Your task to perform on an android device: change alarm snooze length Image 0: 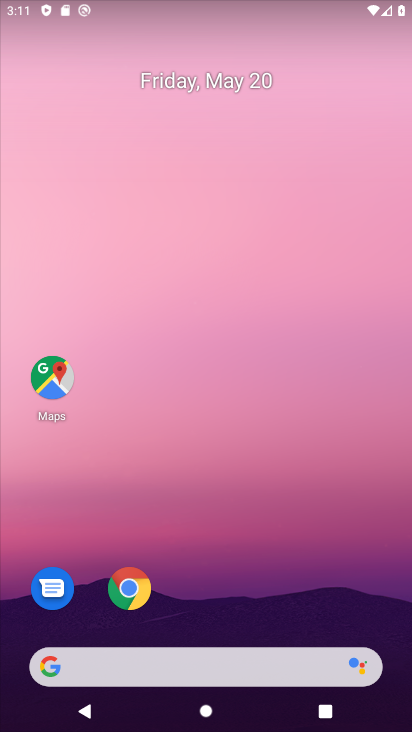
Step 0: press home button
Your task to perform on an android device: change alarm snooze length Image 1: 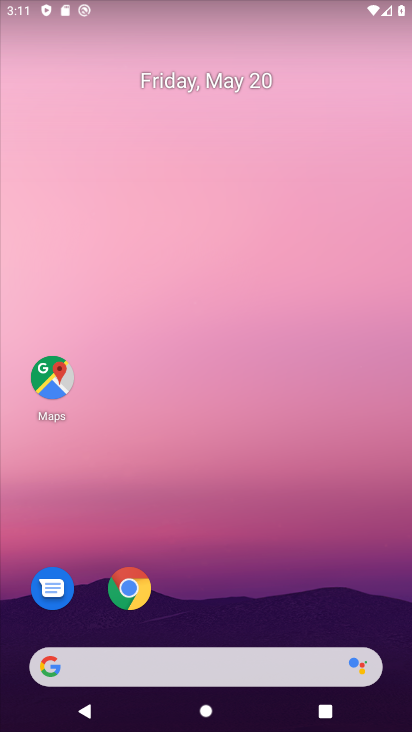
Step 1: drag from (133, 667) to (231, 197)
Your task to perform on an android device: change alarm snooze length Image 2: 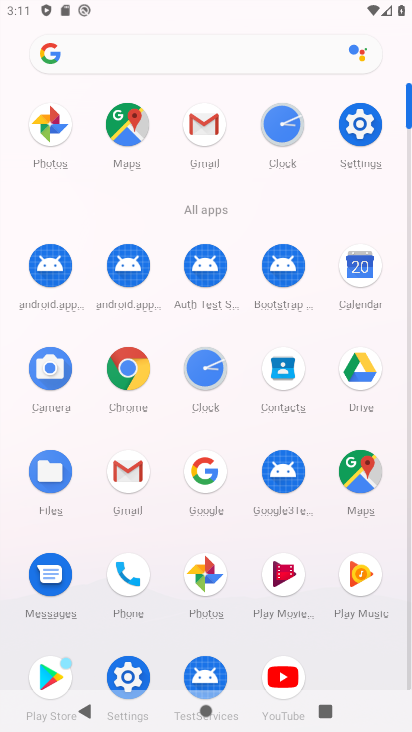
Step 2: click (281, 137)
Your task to perform on an android device: change alarm snooze length Image 3: 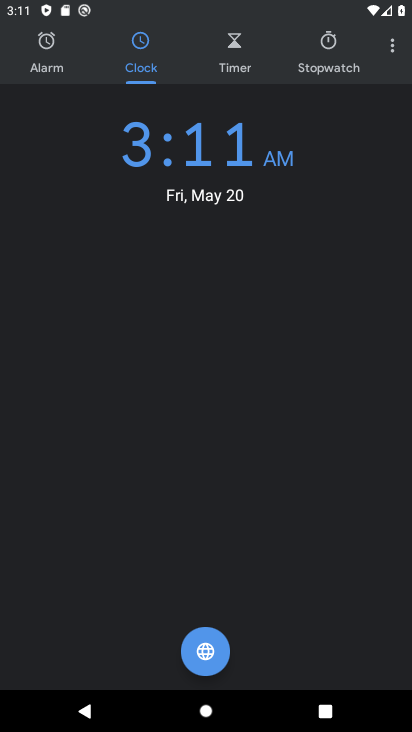
Step 3: click (392, 52)
Your task to perform on an android device: change alarm snooze length Image 4: 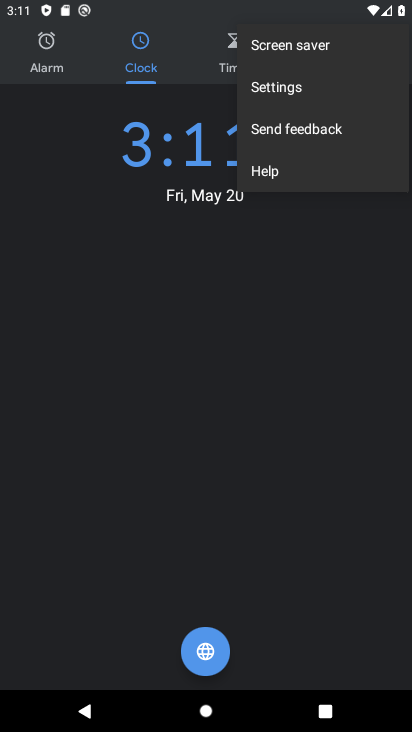
Step 4: click (287, 93)
Your task to perform on an android device: change alarm snooze length Image 5: 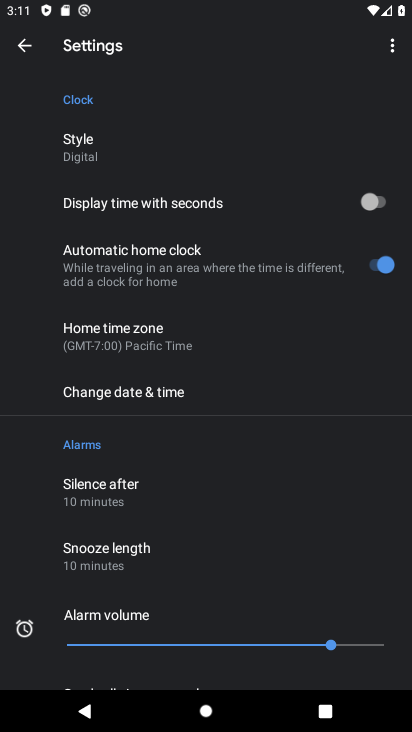
Step 5: click (116, 563)
Your task to perform on an android device: change alarm snooze length Image 6: 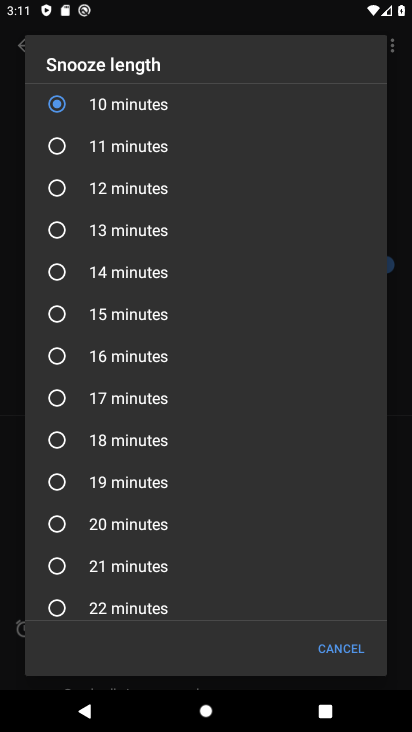
Step 6: click (62, 315)
Your task to perform on an android device: change alarm snooze length Image 7: 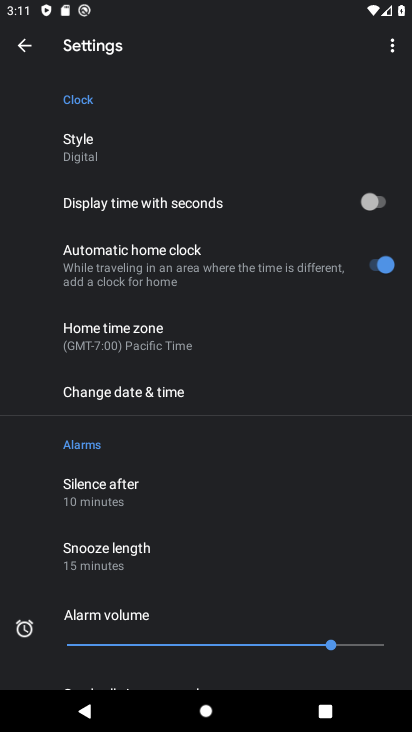
Step 7: task complete